Your task to perform on an android device: see sites visited before in the chrome app Image 0: 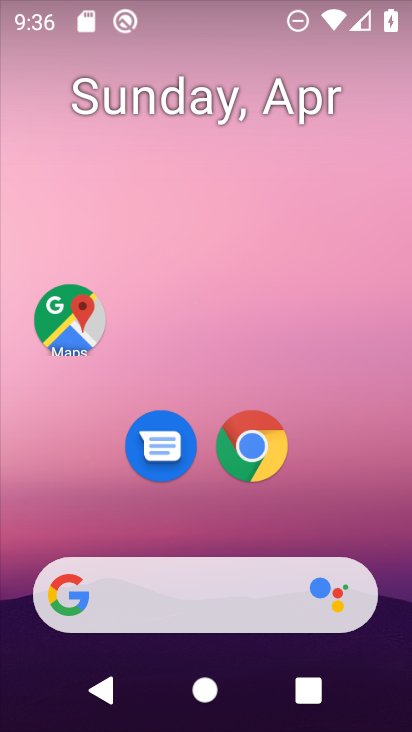
Step 0: drag from (202, 311) to (179, 30)
Your task to perform on an android device: see sites visited before in the chrome app Image 1: 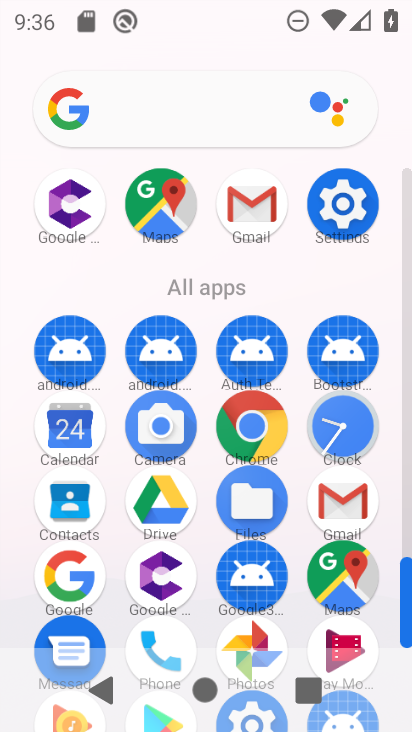
Step 1: click (233, 417)
Your task to perform on an android device: see sites visited before in the chrome app Image 2: 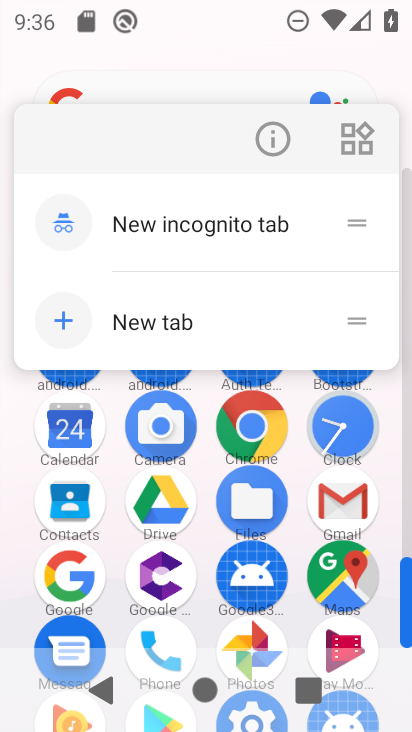
Step 2: click (264, 128)
Your task to perform on an android device: see sites visited before in the chrome app Image 3: 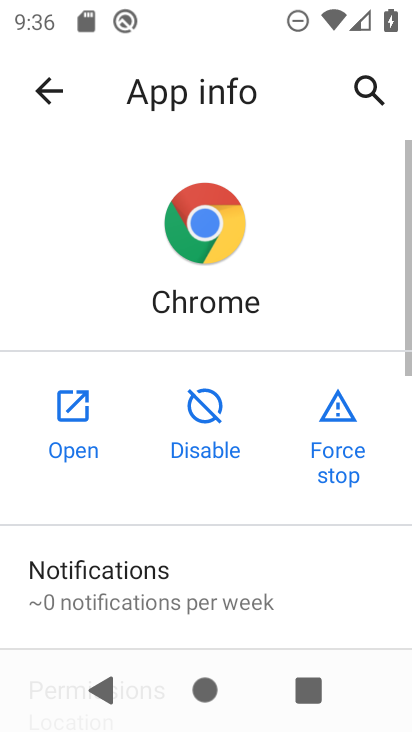
Step 3: click (62, 409)
Your task to perform on an android device: see sites visited before in the chrome app Image 4: 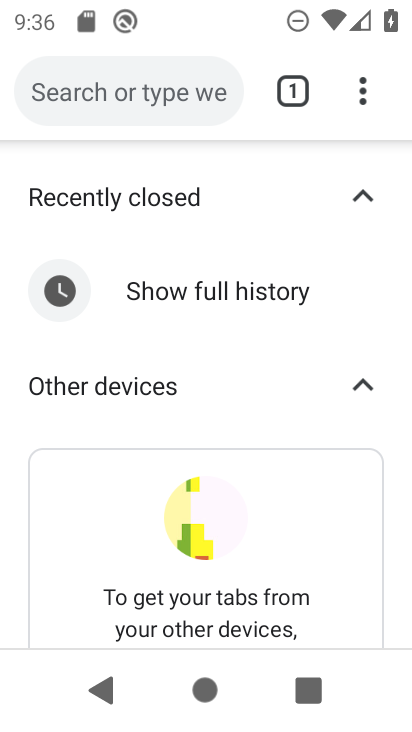
Step 4: click (377, 88)
Your task to perform on an android device: see sites visited before in the chrome app Image 5: 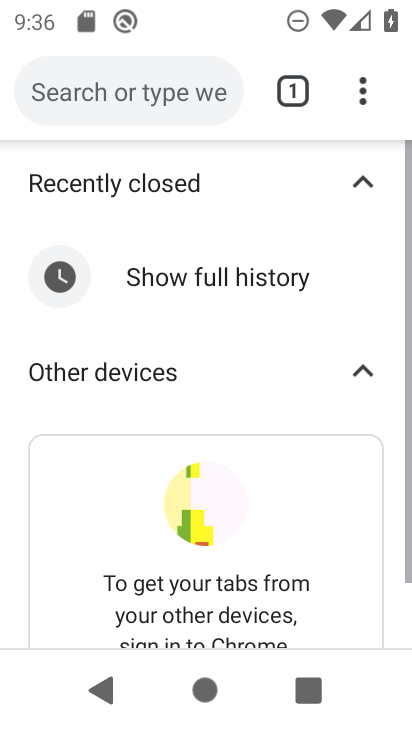
Step 5: drag from (191, 450) to (267, 219)
Your task to perform on an android device: see sites visited before in the chrome app Image 6: 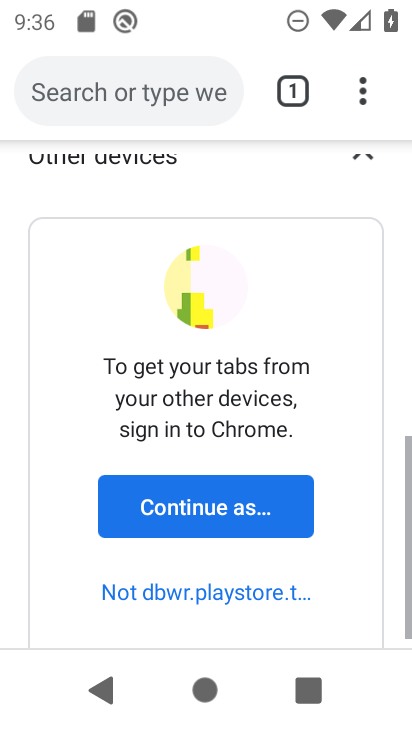
Step 6: click (376, 93)
Your task to perform on an android device: see sites visited before in the chrome app Image 7: 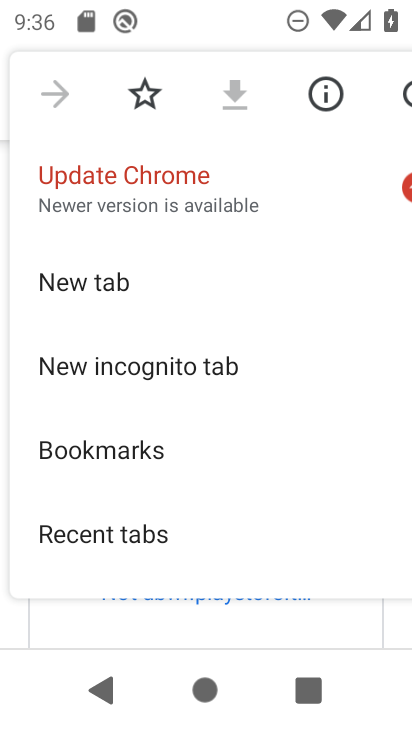
Step 7: drag from (189, 495) to (312, 95)
Your task to perform on an android device: see sites visited before in the chrome app Image 8: 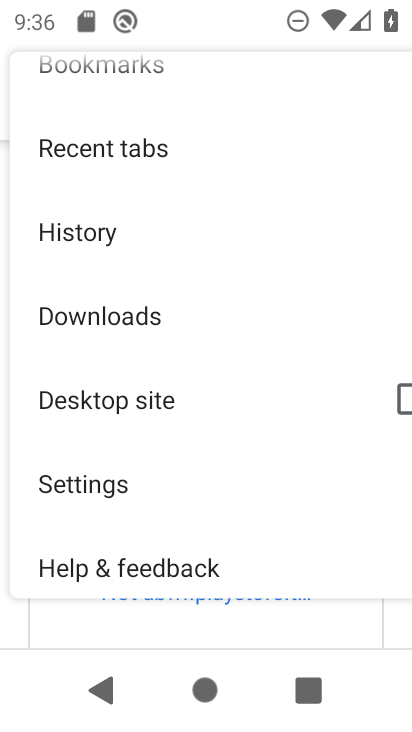
Step 8: click (156, 71)
Your task to perform on an android device: see sites visited before in the chrome app Image 9: 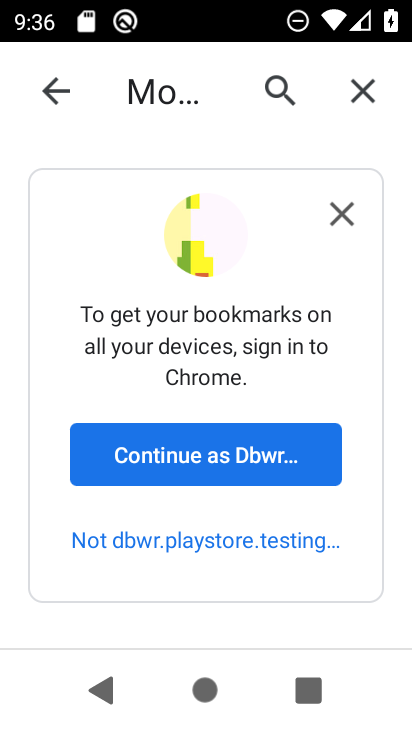
Step 9: task complete